Your task to perform on an android device: toggle show notifications on the lock screen Image 0: 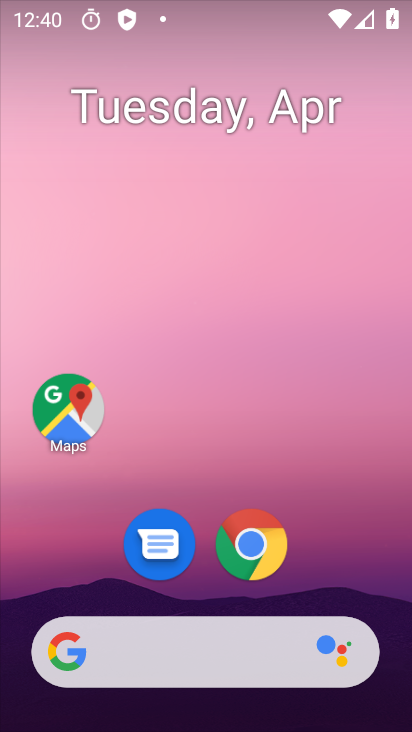
Step 0: drag from (379, 557) to (390, 10)
Your task to perform on an android device: toggle show notifications on the lock screen Image 1: 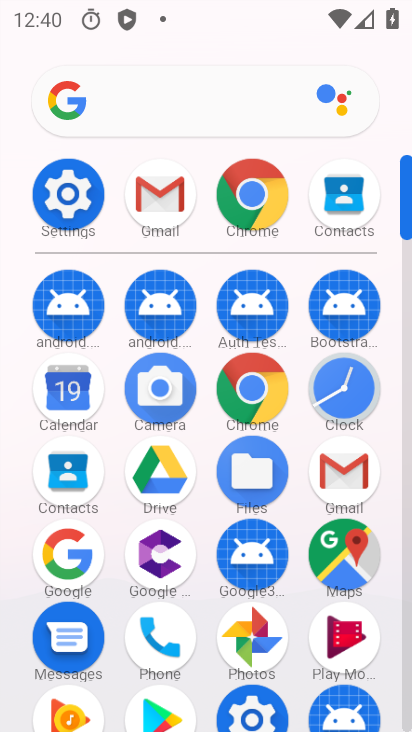
Step 1: click (67, 201)
Your task to perform on an android device: toggle show notifications on the lock screen Image 2: 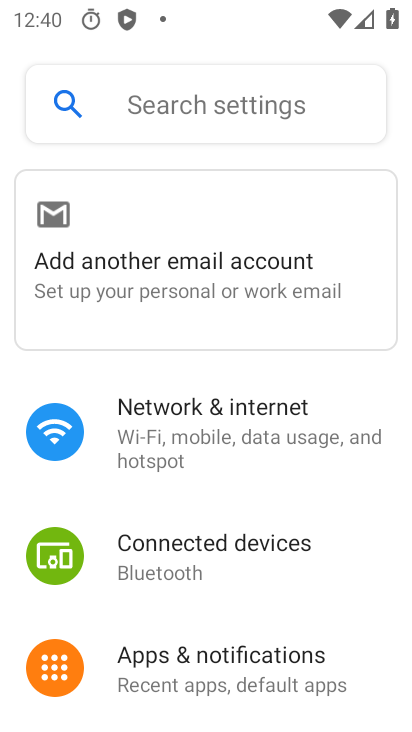
Step 2: click (269, 649)
Your task to perform on an android device: toggle show notifications on the lock screen Image 3: 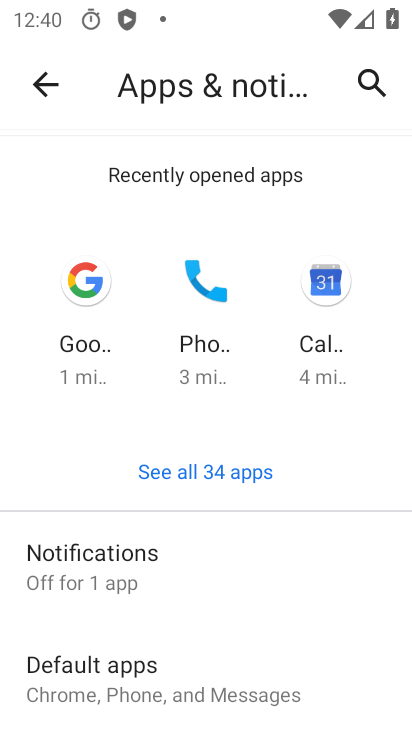
Step 3: click (115, 574)
Your task to perform on an android device: toggle show notifications on the lock screen Image 4: 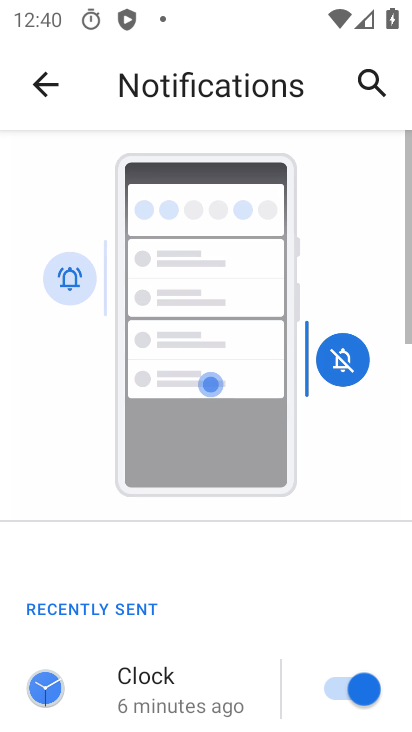
Step 4: drag from (277, 646) to (257, 216)
Your task to perform on an android device: toggle show notifications on the lock screen Image 5: 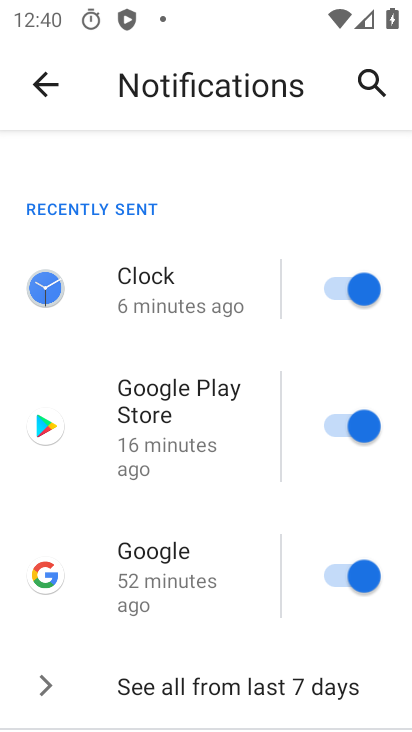
Step 5: drag from (240, 550) to (232, 180)
Your task to perform on an android device: toggle show notifications on the lock screen Image 6: 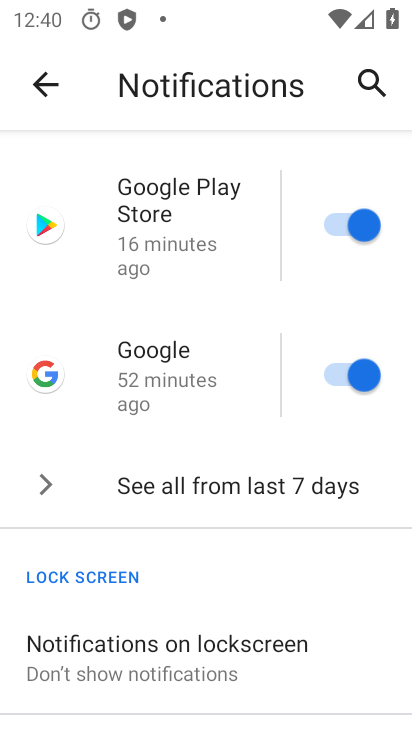
Step 6: drag from (234, 484) to (228, 229)
Your task to perform on an android device: toggle show notifications on the lock screen Image 7: 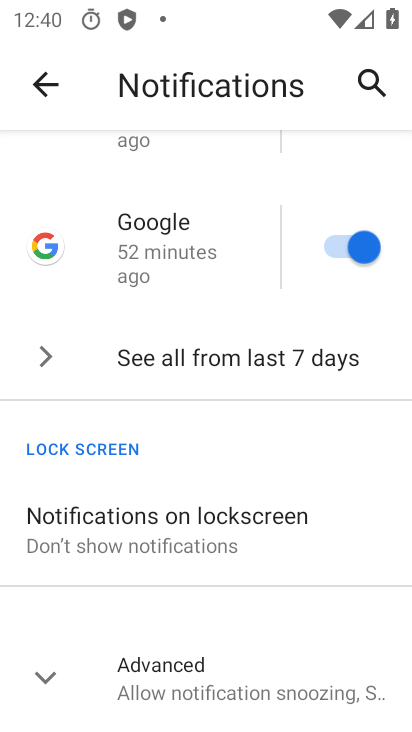
Step 7: click (106, 517)
Your task to perform on an android device: toggle show notifications on the lock screen Image 8: 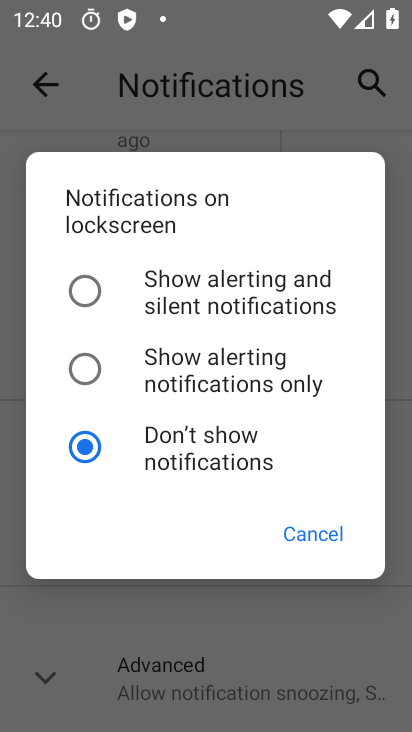
Step 8: click (84, 289)
Your task to perform on an android device: toggle show notifications on the lock screen Image 9: 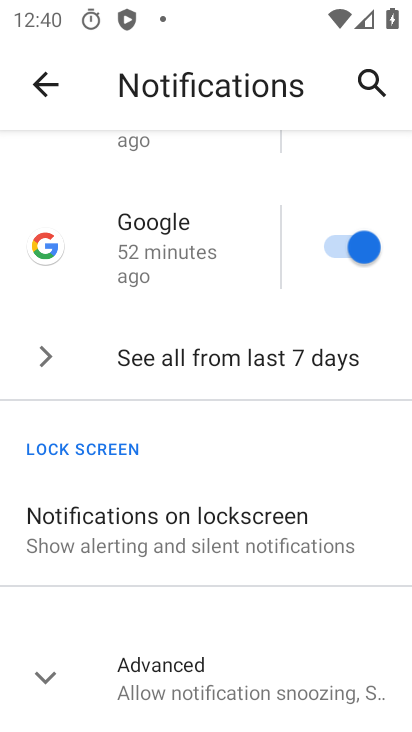
Step 9: task complete